Your task to perform on an android device: Open eBay Image 0: 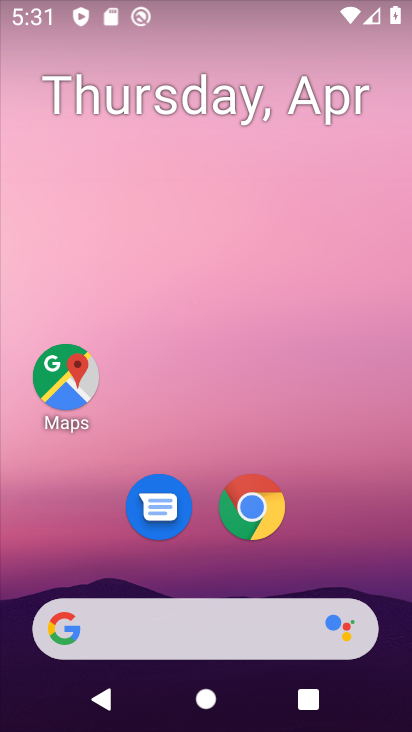
Step 0: click (263, 507)
Your task to perform on an android device: Open eBay Image 1: 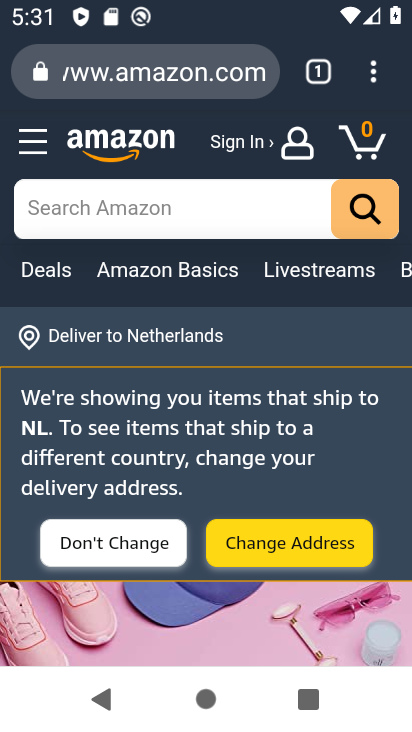
Step 1: drag from (373, 84) to (134, 140)
Your task to perform on an android device: Open eBay Image 2: 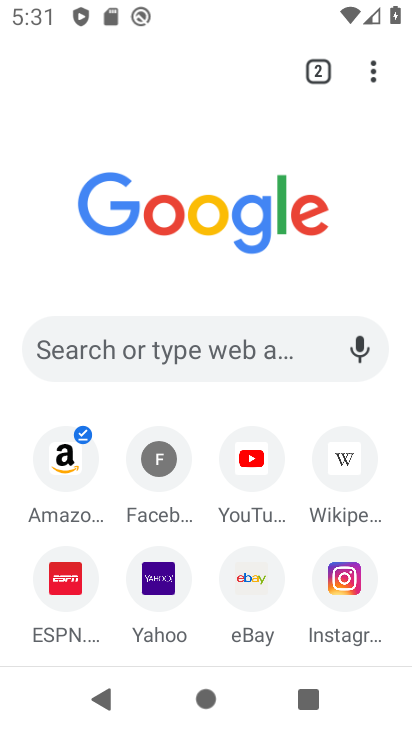
Step 2: click (142, 347)
Your task to perform on an android device: Open eBay Image 3: 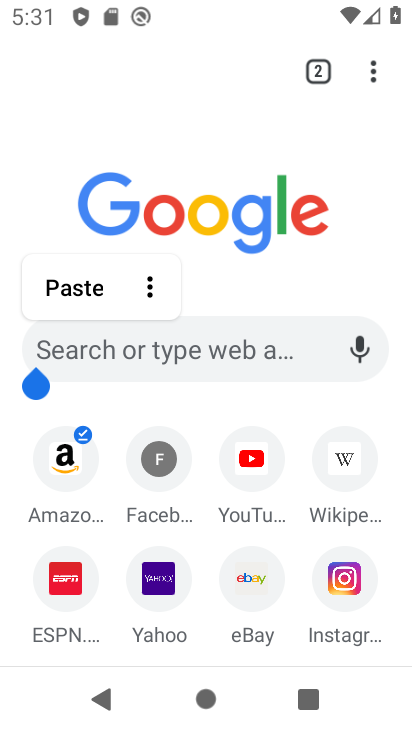
Step 3: click (180, 341)
Your task to perform on an android device: Open eBay Image 4: 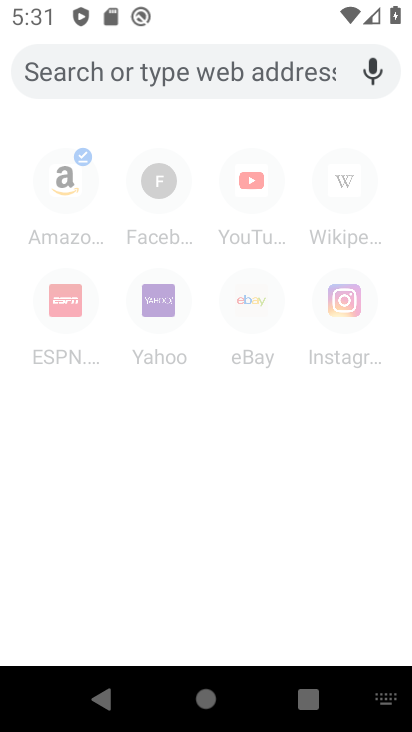
Step 4: type " eBay"
Your task to perform on an android device: Open eBay Image 5: 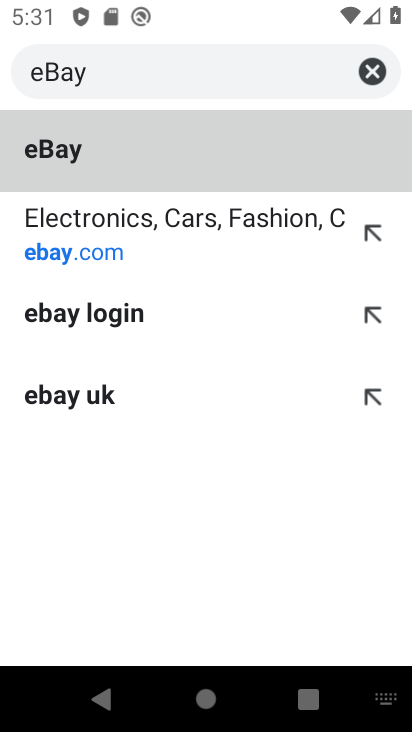
Step 5: click (42, 153)
Your task to perform on an android device: Open eBay Image 6: 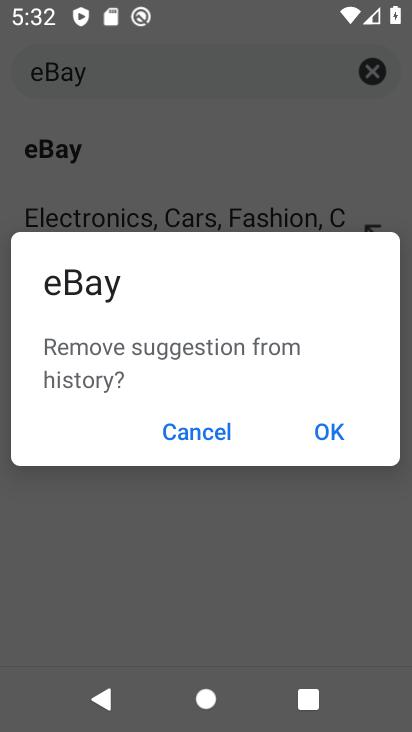
Step 6: click (225, 427)
Your task to perform on an android device: Open eBay Image 7: 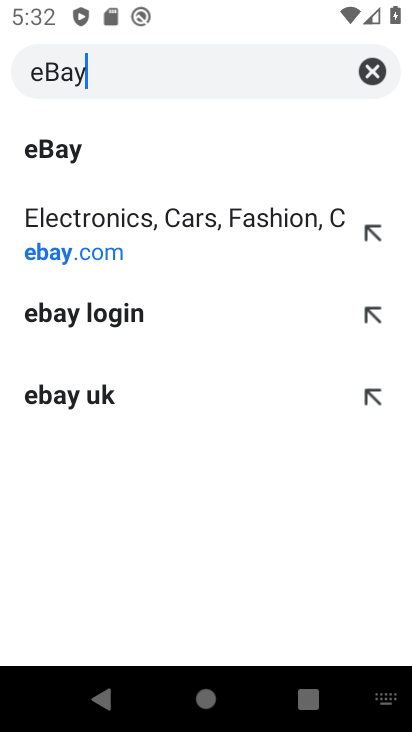
Step 7: click (64, 141)
Your task to perform on an android device: Open eBay Image 8: 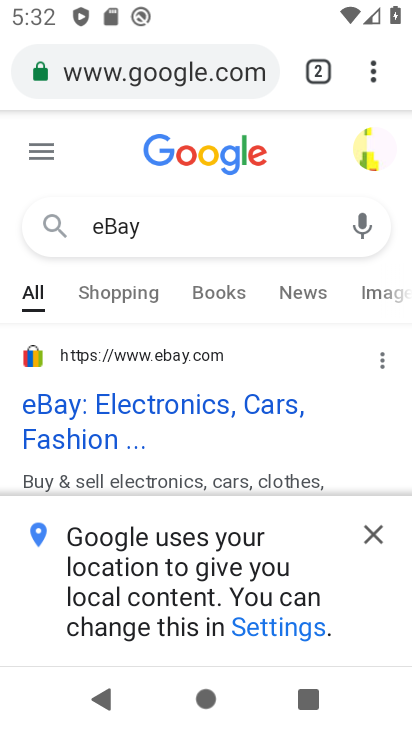
Step 8: click (370, 532)
Your task to perform on an android device: Open eBay Image 9: 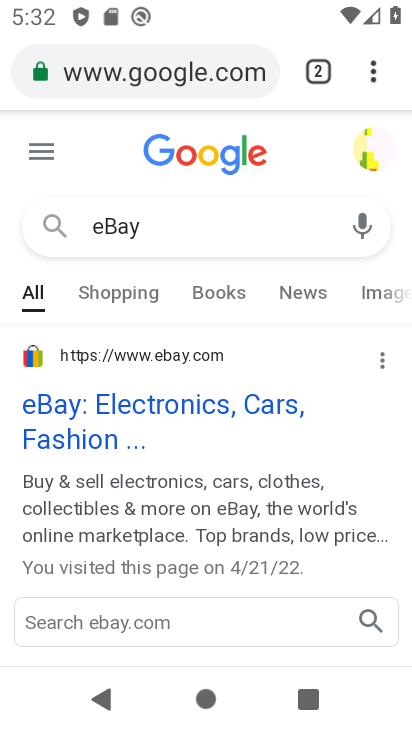
Step 9: click (54, 407)
Your task to perform on an android device: Open eBay Image 10: 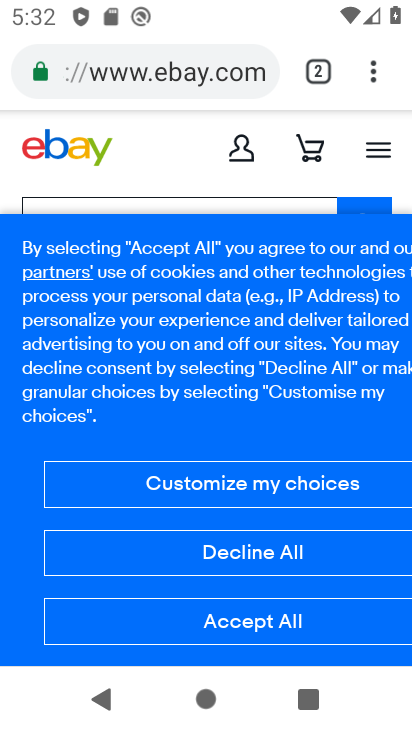
Step 10: task complete